Your task to perform on an android device: choose inbox layout in the gmail app Image 0: 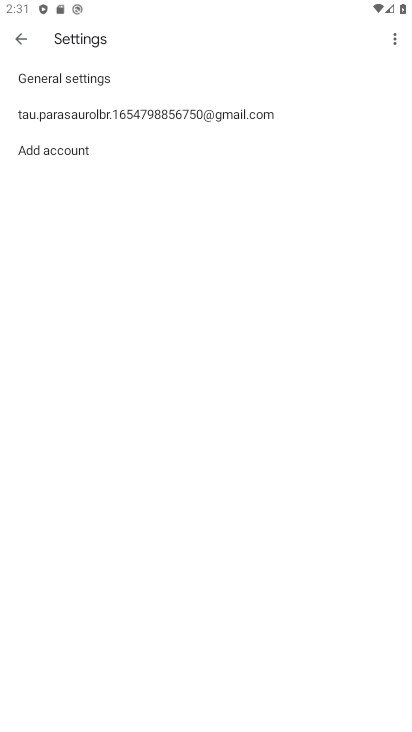
Step 0: press home button
Your task to perform on an android device: choose inbox layout in the gmail app Image 1: 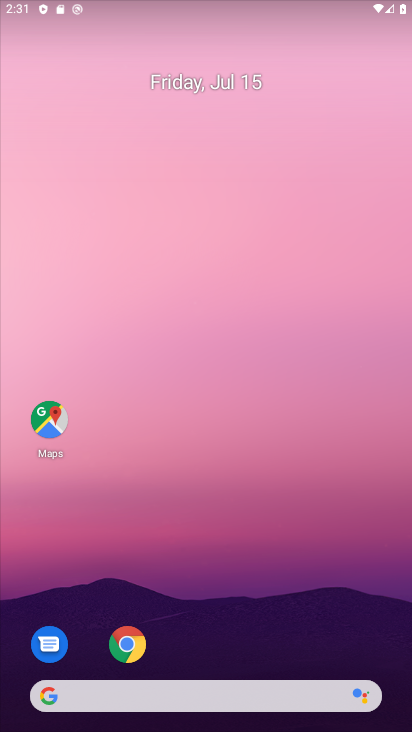
Step 1: drag from (212, 711) to (159, 74)
Your task to perform on an android device: choose inbox layout in the gmail app Image 2: 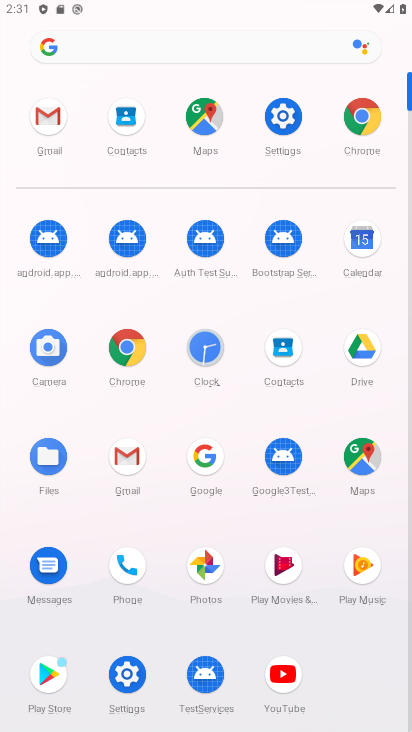
Step 2: click (136, 467)
Your task to perform on an android device: choose inbox layout in the gmail app Image 3: 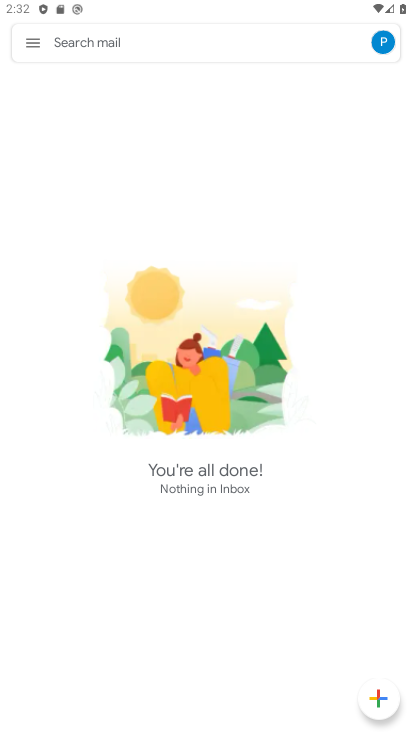
Step 3: click (35, 39)
Your task to perform on an android device: choose inbox layout in the gmail app Image 4: 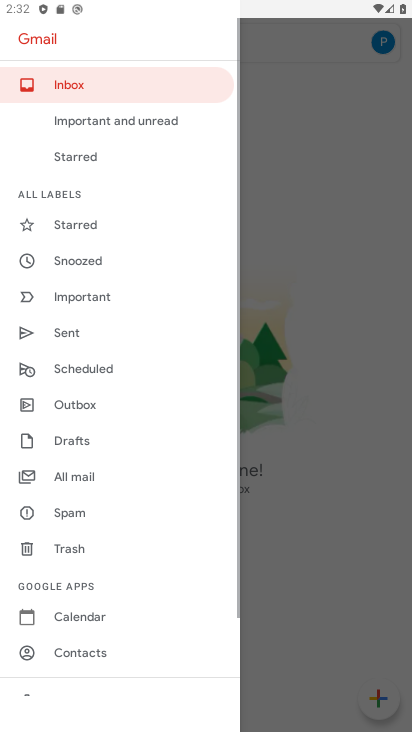
Step 4: drag from (100, 655) to (138, 294)
Your task to perform on an android device: choose inbox layout in the gmail app Image 5: 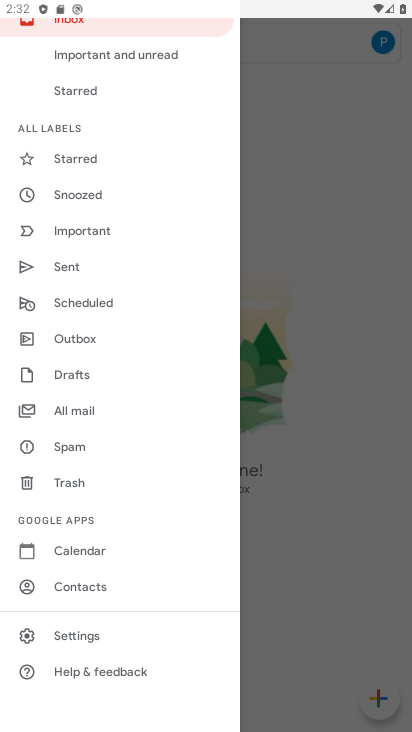
Step 5: click (95, 638)
Your task to perform on an android device: choose inbox layout in the gmail app Image 6: 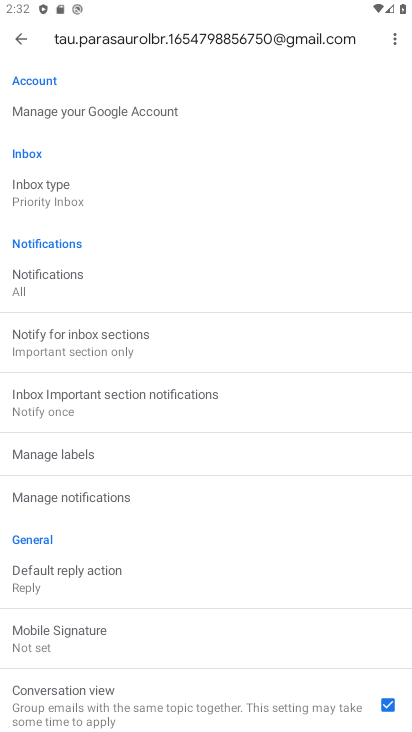
Step 6: click (70, 188)
Your task to perform on an android device: choose inbox layout in the gmail app Image 7: 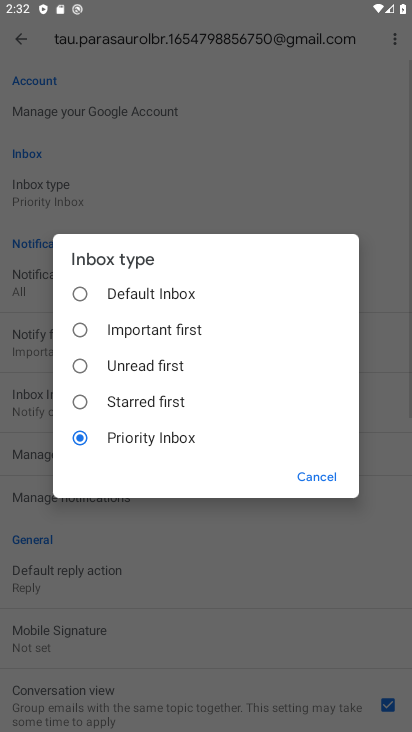
Step 7: click (85, 312)
Your task to perform on an android device: choose inbox layout in the gmail app Image 8: 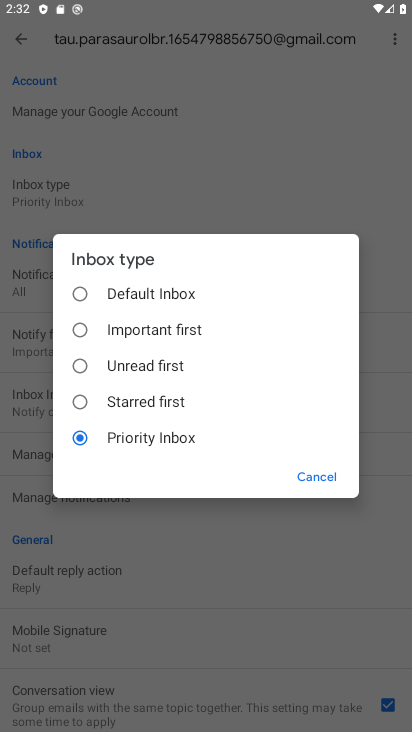
Step 8: click (83, 297)
Your task to perform on an android device: choose inbox layout in the gmail app Image 9: 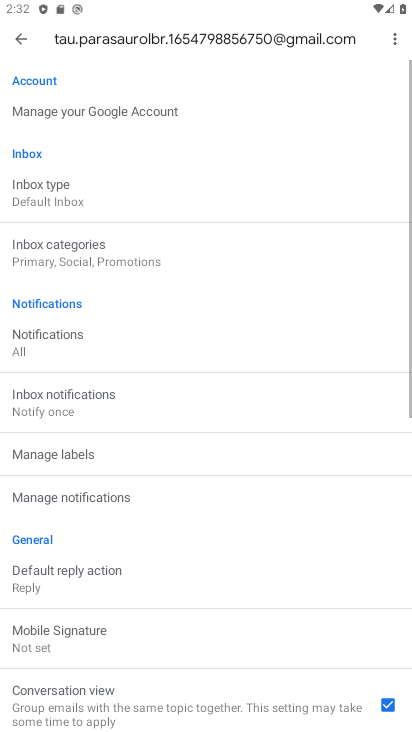
Step 9: task complete